Your task to perform on an android device: Toggle the flashlight Image 0: 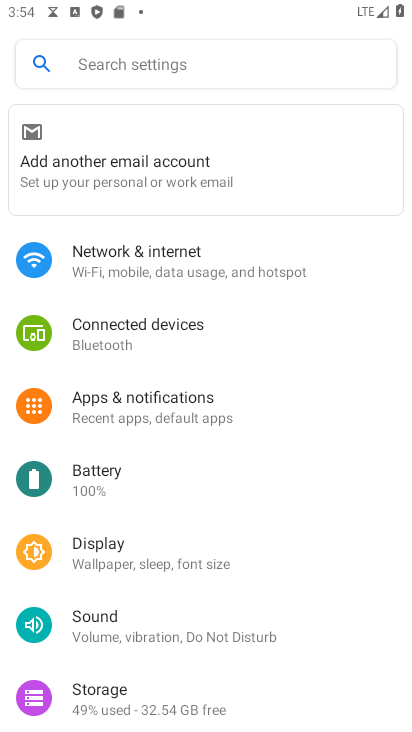
Step 0: task impossible